Your task to perform on an android device: all mails in gmail Image 0: 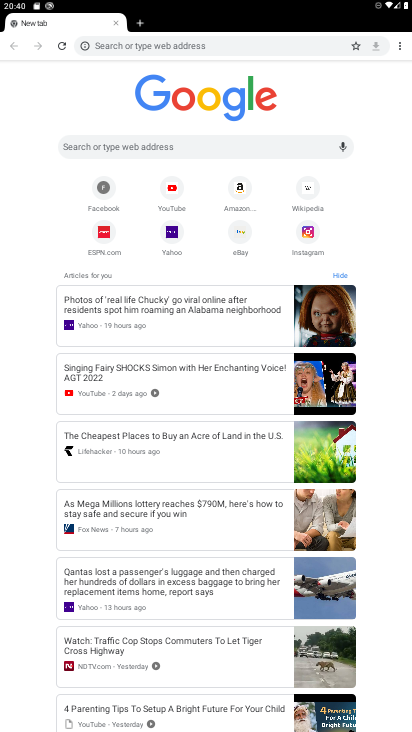
Step 0: press home button
Your task to perform on an android device: all mails in gmail Image 1: 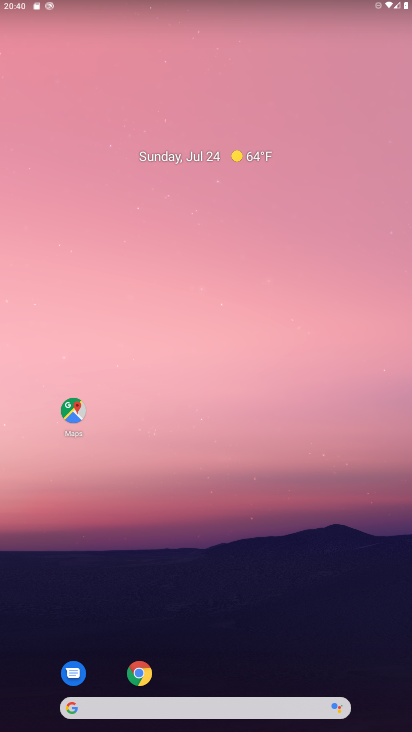
Step 1: drag from (333, 574) to (329, 23)
Your task to perform on an android device: all mails in gmail Image 2: 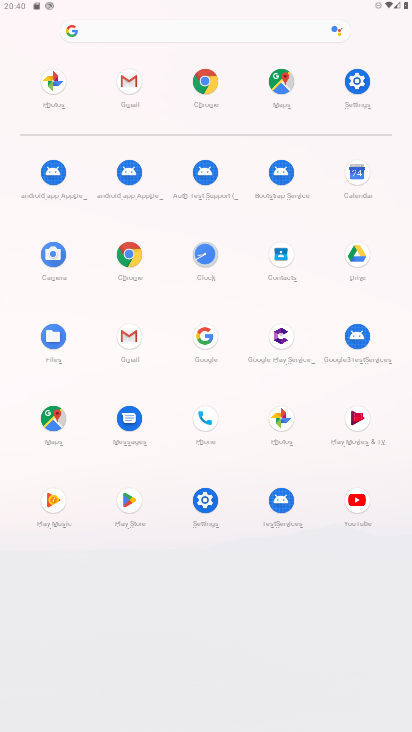
Step 2: click (133, 334)
Your task to perform on an android device: all mails in gmail Image 3: 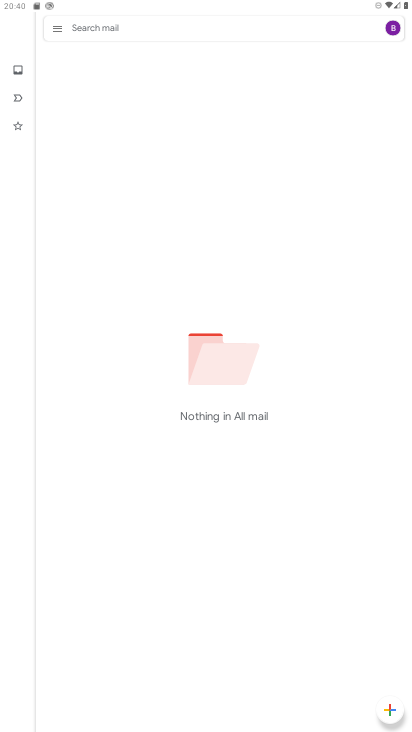
Step 3: task complete